Your task to perform on an android device: visit the assistant section in the google photos Image 0: 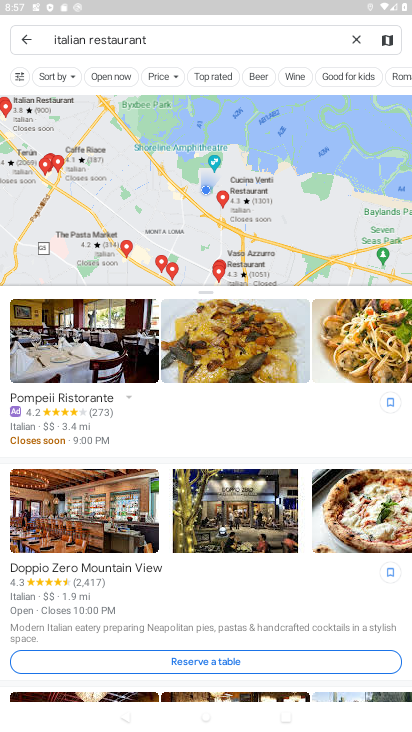
Step 0: press home button
Your task to perform on an android device: visit the assistant section in the google photos Image 1: 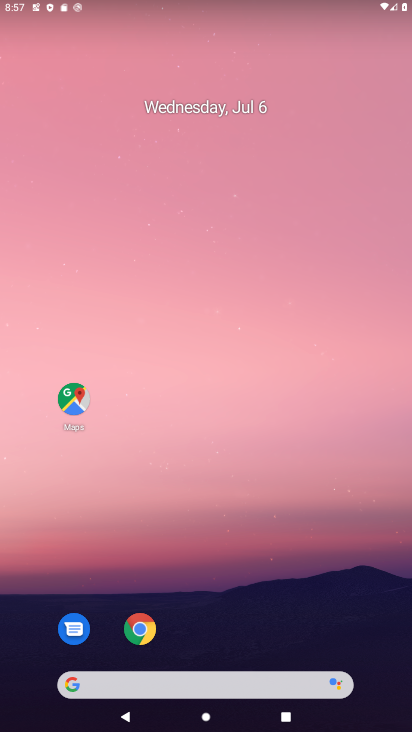
Step 1: drag from (249, 639) to (249, 170)
Your task to perform on an android device: visit the assistant section in the google photos Image 2: 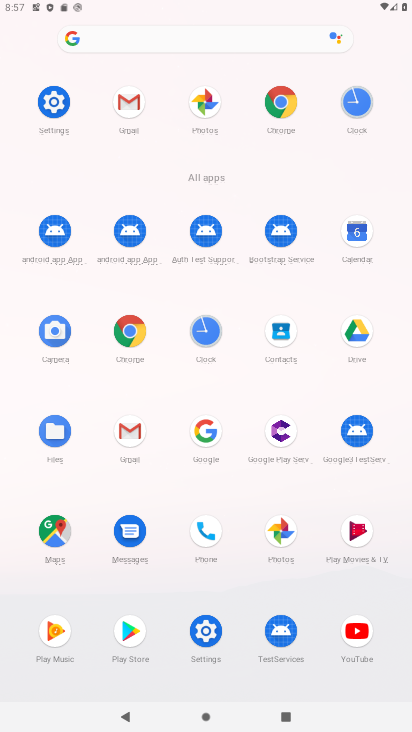
Step 2: click (285, 540)
Your task to perform on an android device: visit the assistant section in the google photos Image 3: 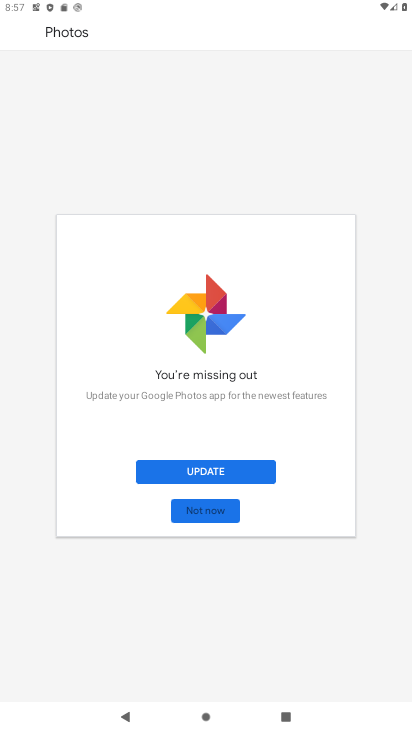
Step 3: click (212, 512)
Your task to perform on an android device: visit the assistant section in the google photos Image 4: 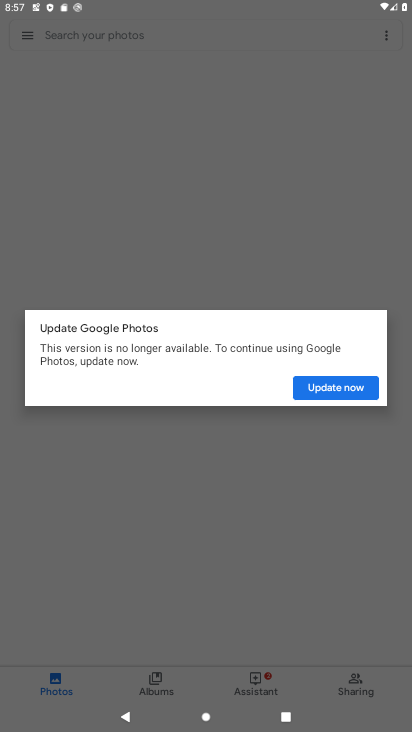
Step 4: click (336, 379)
Your task to perform on an android device: visit the assistant section in the google photos Image 5: 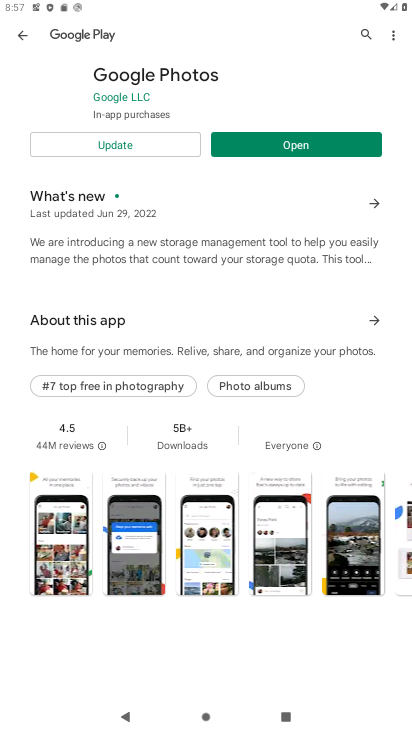
Step 5: click (126, 142)
Your task to perform on an android device: visit the assistant section in the google photos Image 6: 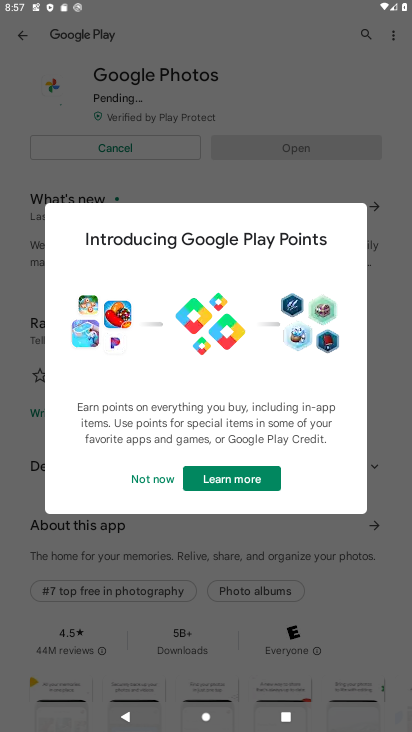
Step 6: click (153, 484)
Your task to perform on an android device: visit the assistant section in the google photos Image 7: 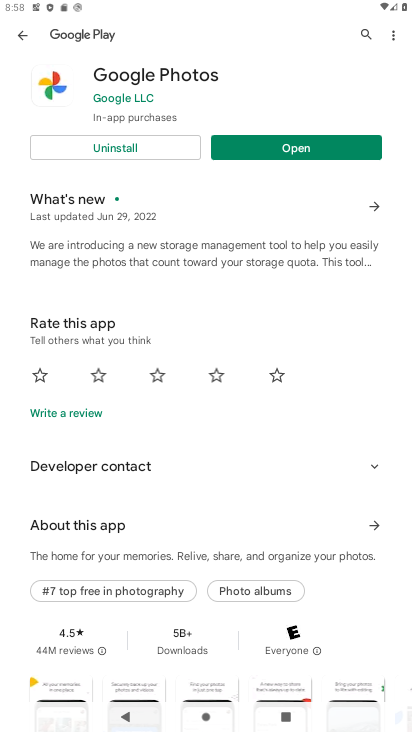
Step 7: click (277, 144)
Your task to perform on an android device: visit the assistant section in the google photos Image 8: 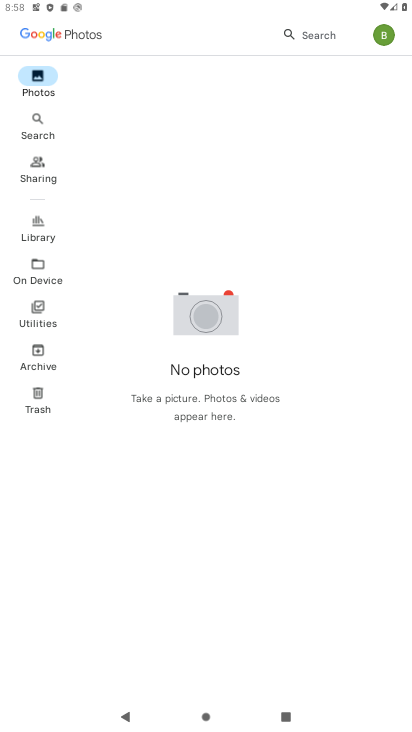
Step 8: click (286, 26)
Your task to perform on an android device: visit the assistant section in the google photos Image 9: 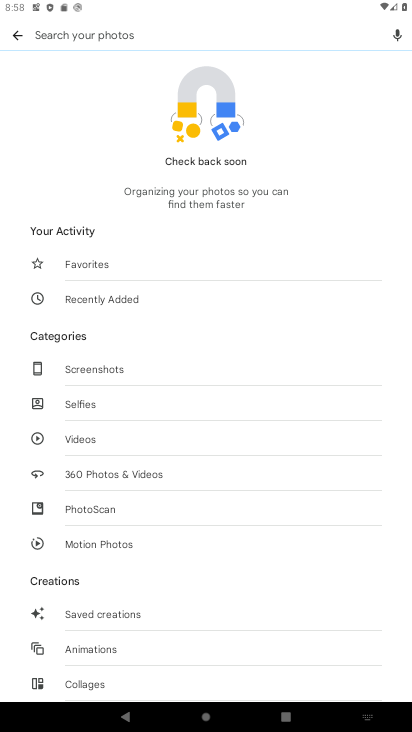
Step 9: task complete